Your task to perform on an android device: remove spam from my inbox in the gmail app Image 0: 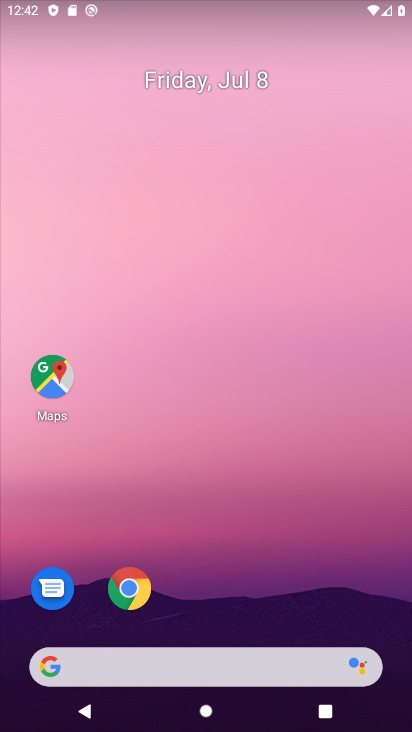
Step 0: drag from (264, 582) to (272, 0)
Your task to perform on an android device: remove spam from my inbox in the gmail app Image 1: 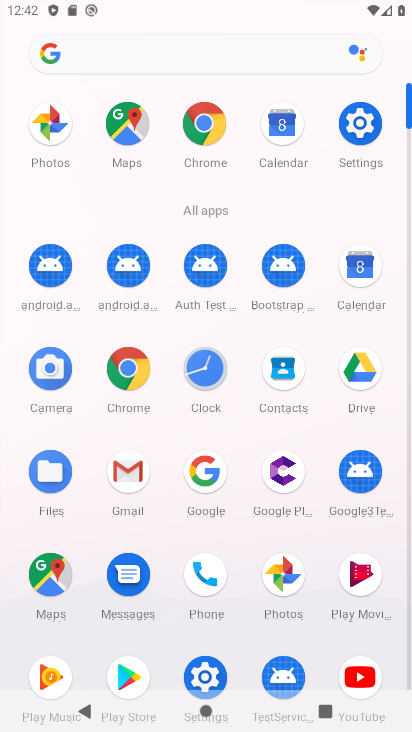
Step 1: click (129, 473)
Your task to perform on an android device: remove spam from my inbox in the gmail app Image 2: 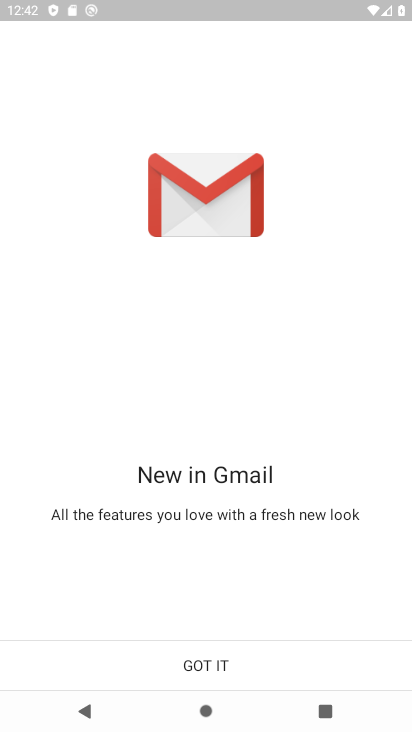
Step 2: click (181, 661)
Your task to perform on an android device: remove spam from my inbox in the gmail app Image 3: 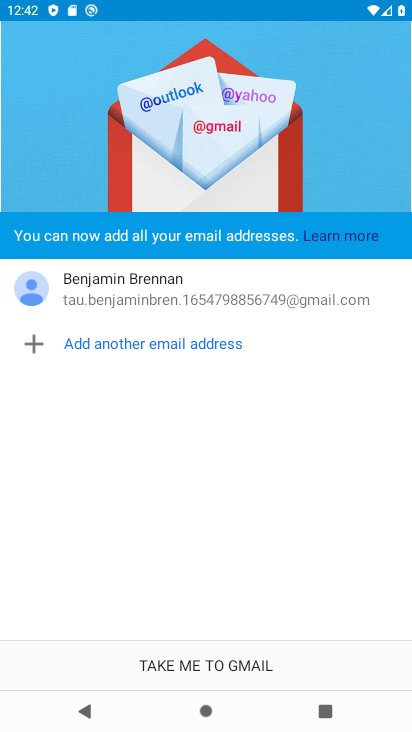
Step 3: click (194, 659)
Your task to perform on an android device: remove spam from my inbox in the gmail app Image 4: 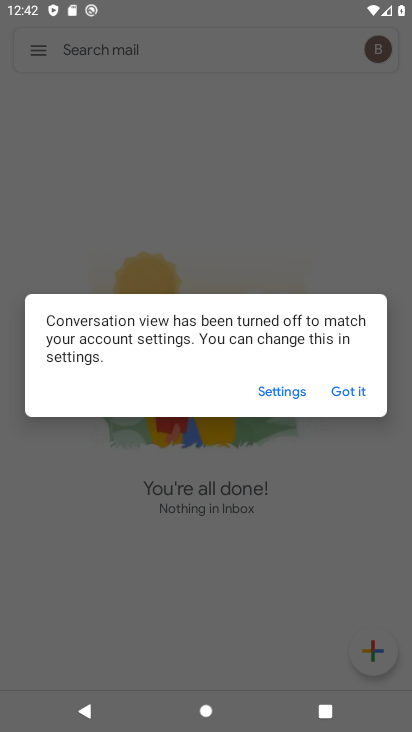
Step 4: click (360, 390)
Your task to perform on an android device: remove spam from my inbox in the gmail app Image 5: 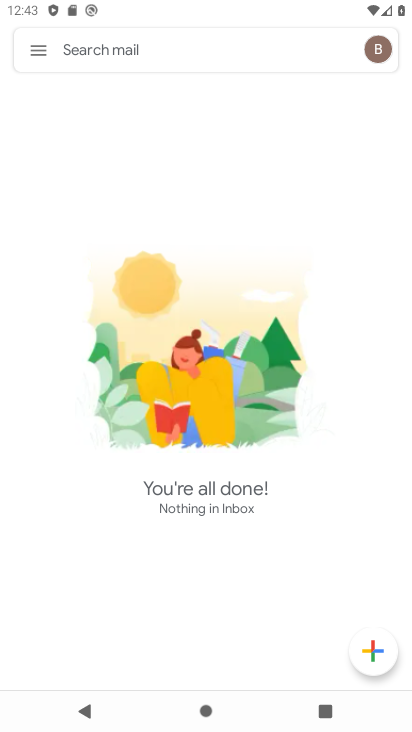
Step 5: click (29, 42)
Your task to perform on an android device: remove spam from my inbox in the gmail app Image 6: 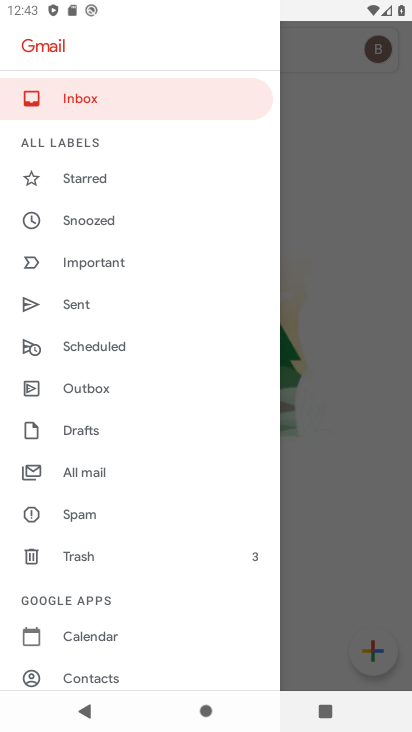
Step 6: click (85, 513)
Your task to perform on an android device: remove spam from my inbox in the gmail app Image 7: 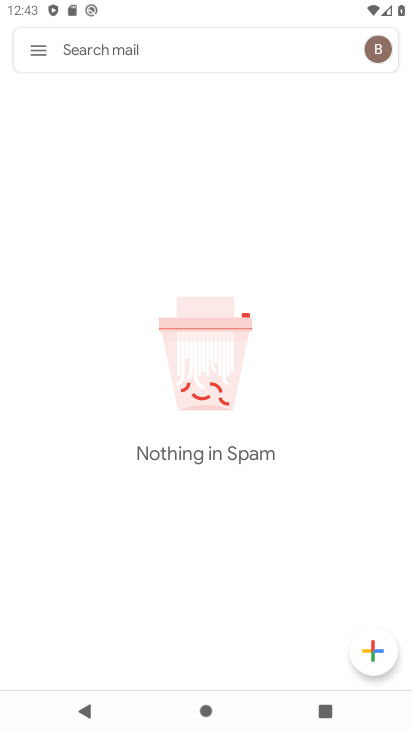
Step 7: task complete